Your task to perform on an android device: Turn on the flashlight Image 0: 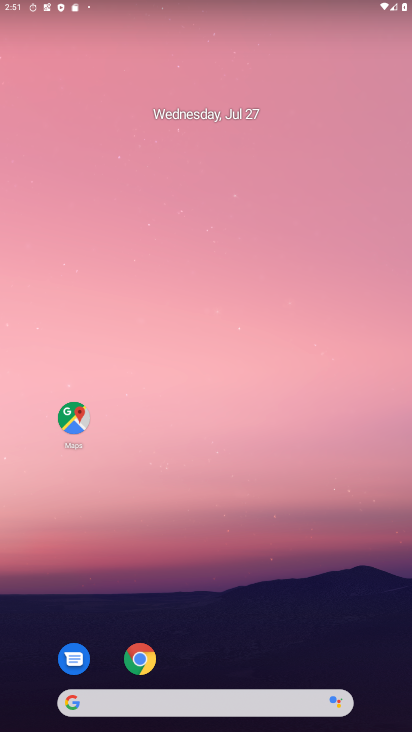
Step 0: drag from (197, 725) to (192, 168)
Your task to perform on an android device: Turn on the flashlight Image 1: 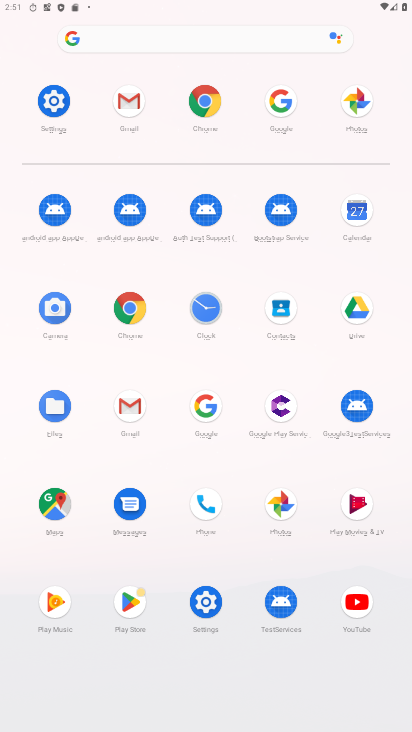
Step 1: click (50, 94)
Your task to perform on an android device: Turn on the flashlight Image 2: 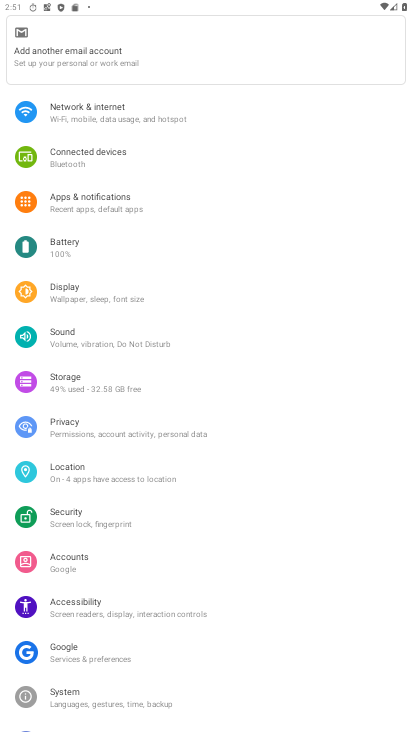
Step 2: task complete